Your task to perform on an android device: Toggle the flashlight Image 0: 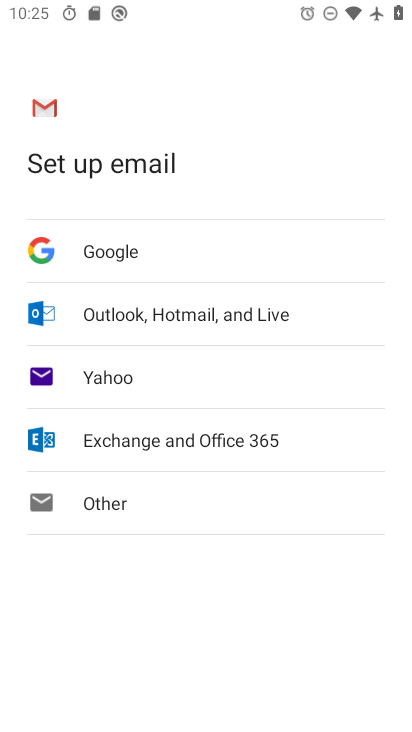
Step 0: press home button
Your task to perform on an android device: Toggle the flashlight Image 1: 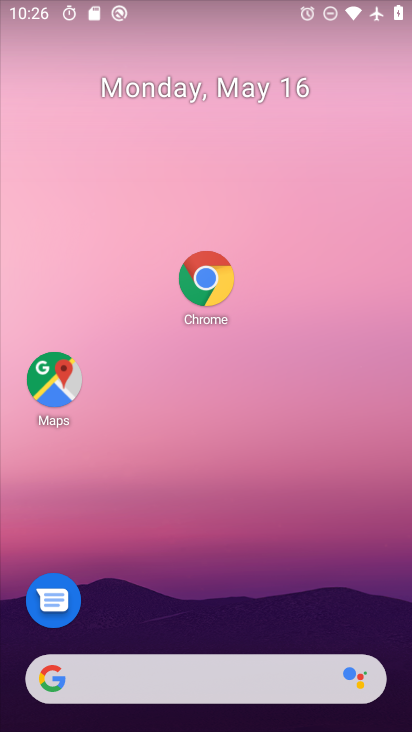
Step 1: task complete